Your task to perform on an android device: Open calendar and show me the third week of next month Image 0: 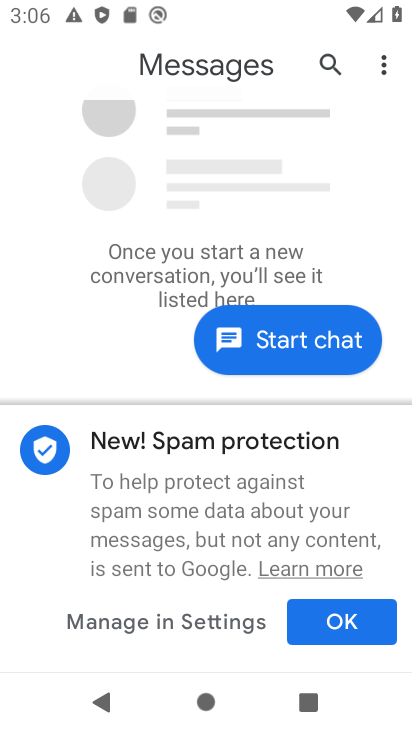
Step 0: press home button
Your task to perform on an android device: Open calendar and show me the third week of next month Image 1: 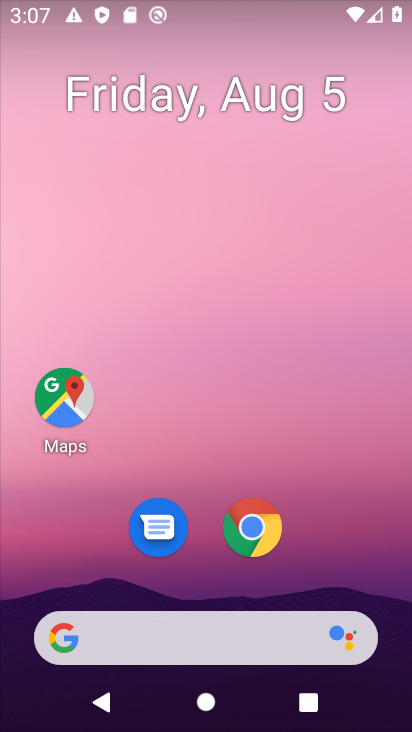
Step 1: drag from (195, 452) to (195, 98)
Your task to perform on an android device: Open calendar and show me the third week of next month Image 2: 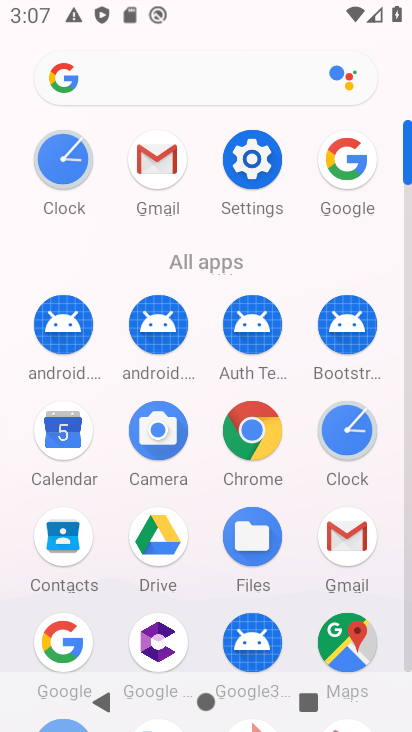
Step 2: click (57, 444)
Your task to perform on an android device: Open calendar and show me the third week of next month Image 3: 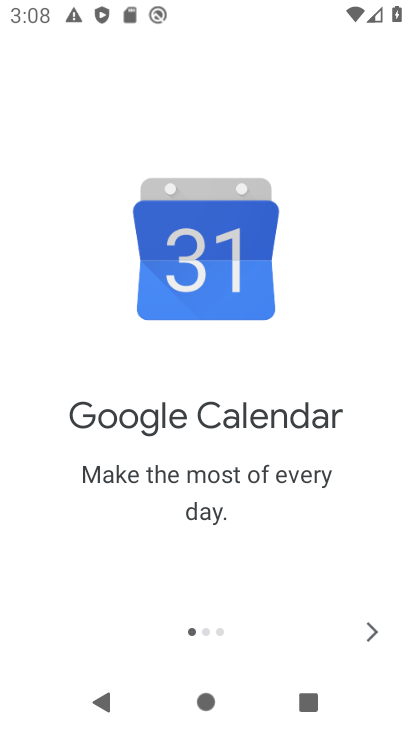
Step 3: click (369, 631)
Your task to perform on an android device: Open calendar and show me the third week of next month Image 4: 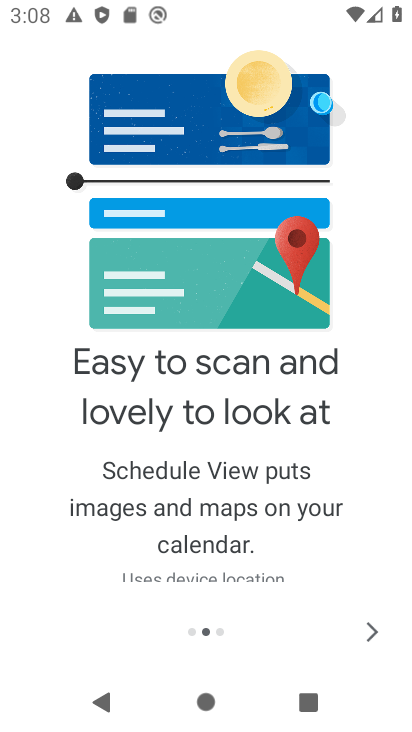
Step 4: click (369, 631)
Your task to perform on an android device: Open calendar and show me the third week of next month Image 5: 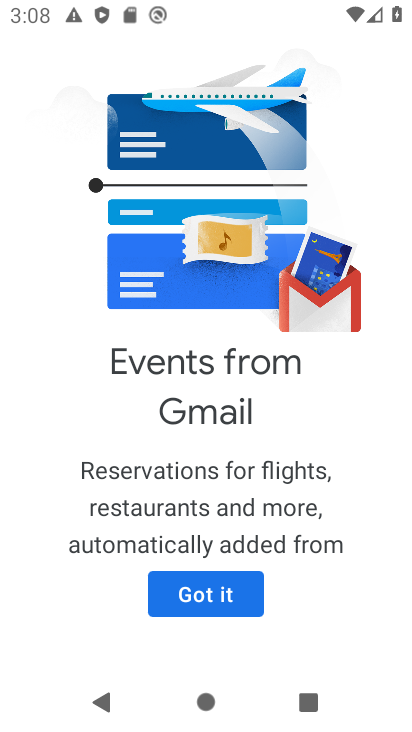
Step 5: click (222, 593)
Your task to perform on an android device: Open calendar and show me the third week of next month Image 6: 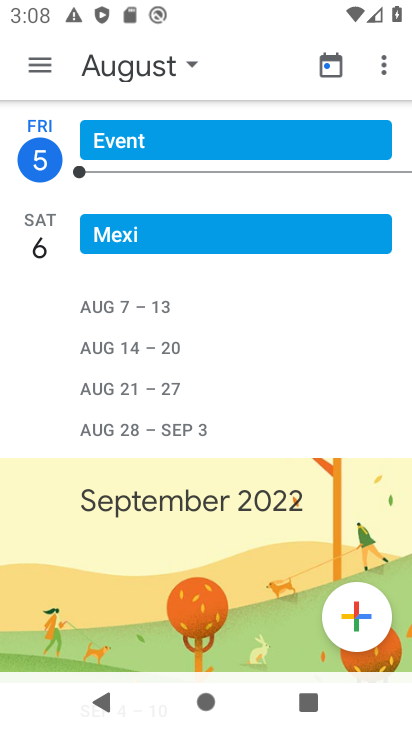
Step 6: click (184, 64)
Your task to perform on an android device: Open calendar and show me the third week of next month Image 7: 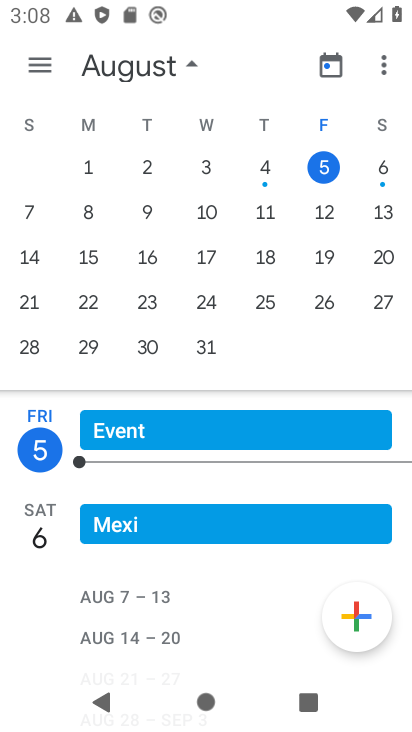
Step 7: drag from (345, 232) to (107, 232)
Your task to perform on an android device: Open calendar and show me the third week of next month Image 8: 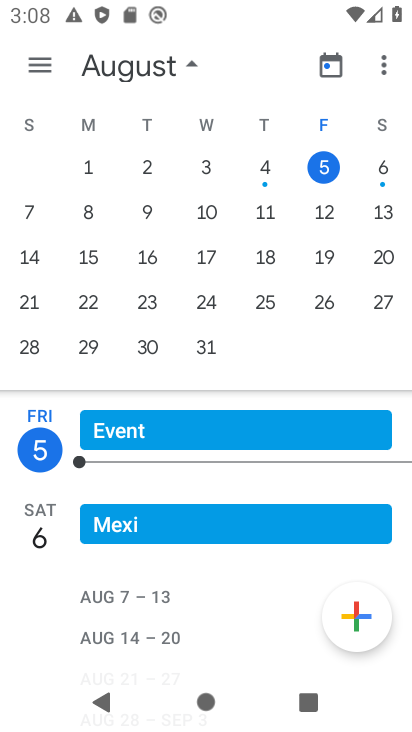
Step 8: drag from (382, 210) to (41, 210)
Your task to perform on an android device: Open calendar and show me the third week of next month Image 9: 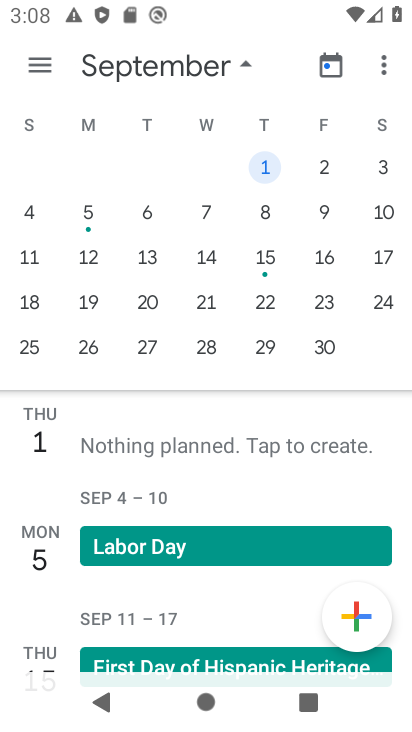
Step 9: click (89, 302)
Your task to perform on an android device: Open calendar and show me the third week of next month Image 10: 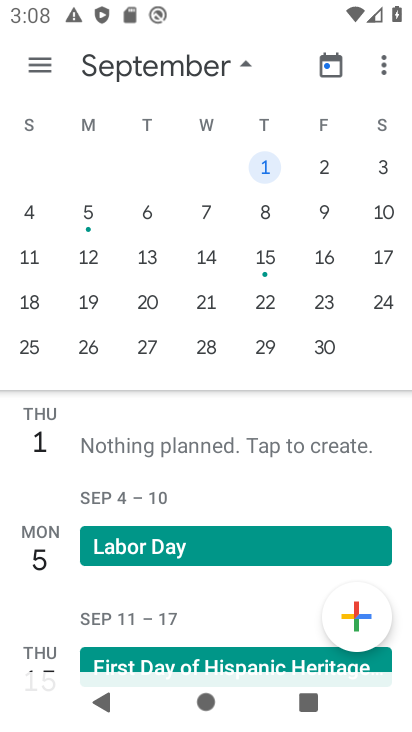
Step 10: click (87, 294)
Your task to perform on an android device: Open calendar and show me the third week of next month Image 11: 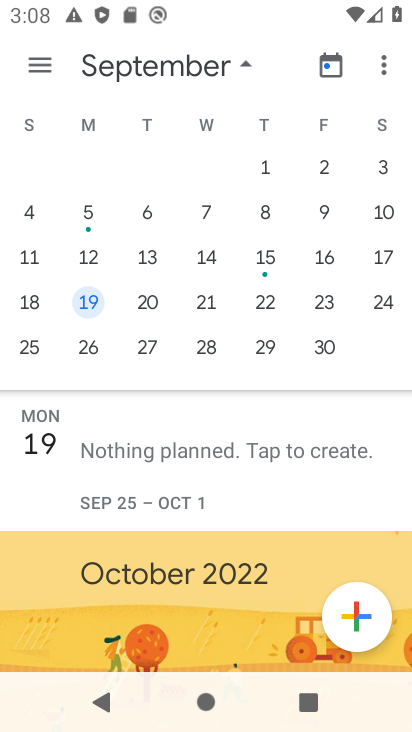
Step 11: click (35, 63)
Your task to perform on an android device: Open calendar and show me the third week of next month Image 12: 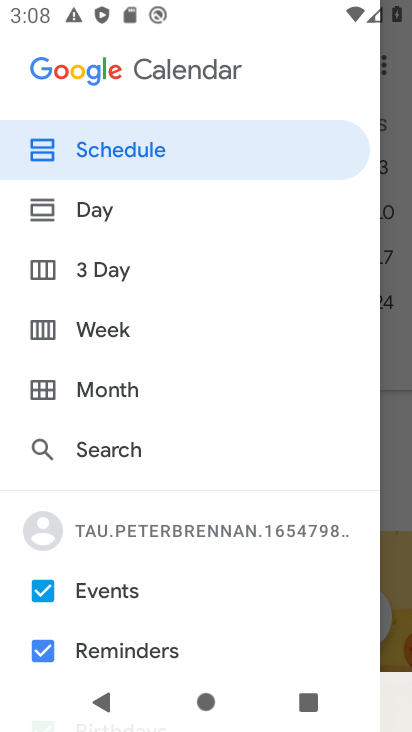
Step 12: click (102, 329)
Your task to perform on an android device: Open calendar and show me the third week of next month Image 13: 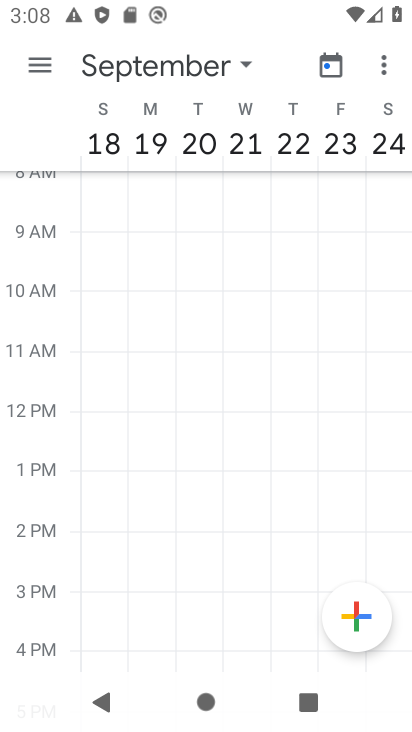
Step 13: task complete